Your task to perform on an android device: toggle notifications settings in the gmail app Image 0: 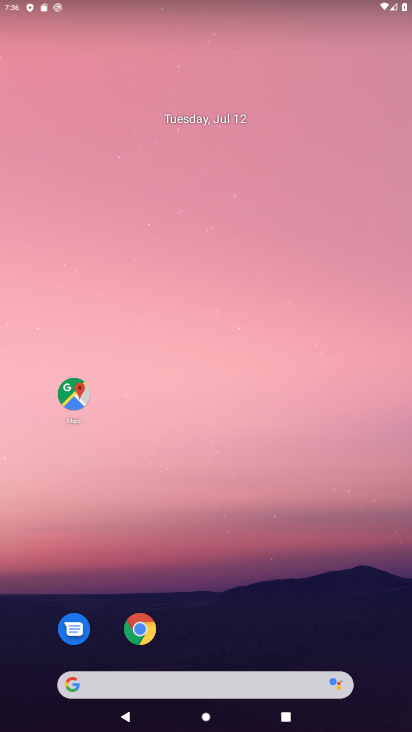
Step 0: drag from (249, 626) to (253, 0)
Your task to perform on an android device: toggle notifications settings in the gmail app Image 1: 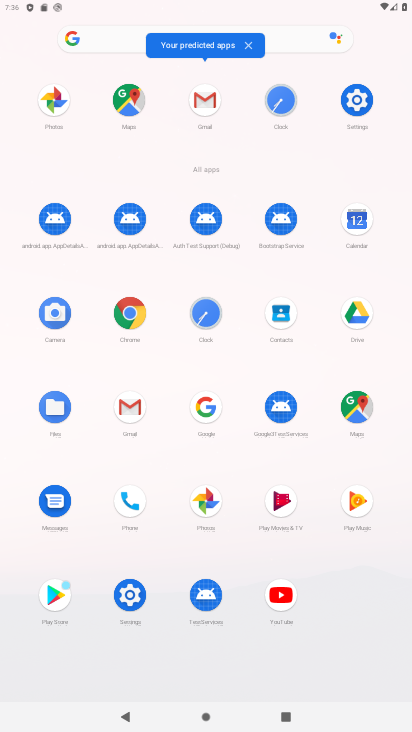
Step 1: click (130, 426)
Your task to perform on an android device: toggle notifications settings in the gmail app Image 2: 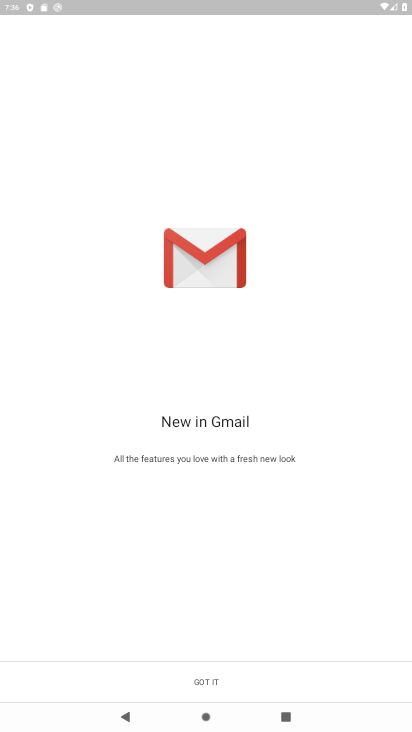
Step 2: click (182, 683)
Your task to perform on an android device: toggle notifications settings in the gmail app Image 3: 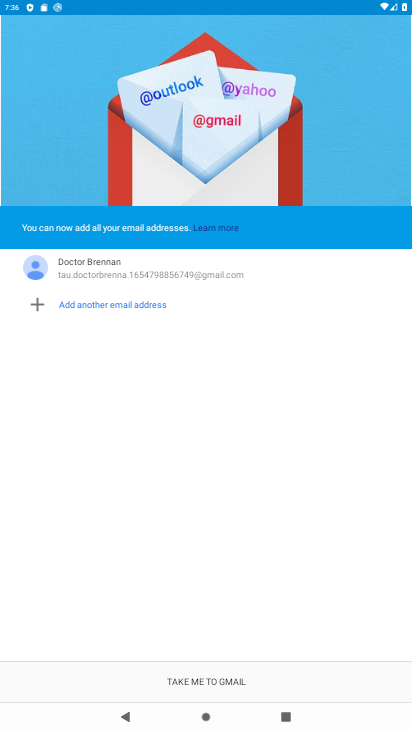
Step 3: click (183, 682)
Your task to perform on an android device: toggle notifications settings in the gmail app Image 4: 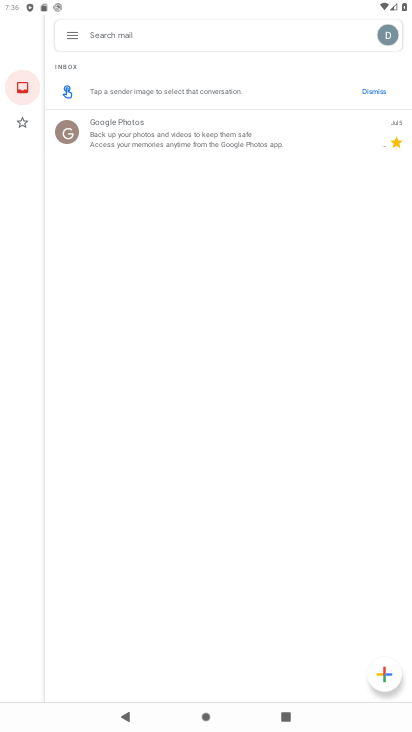
Step 4: click (73, 39)
Your task to perform on an android device: toggle notifications settings in the gmail app Image 5: 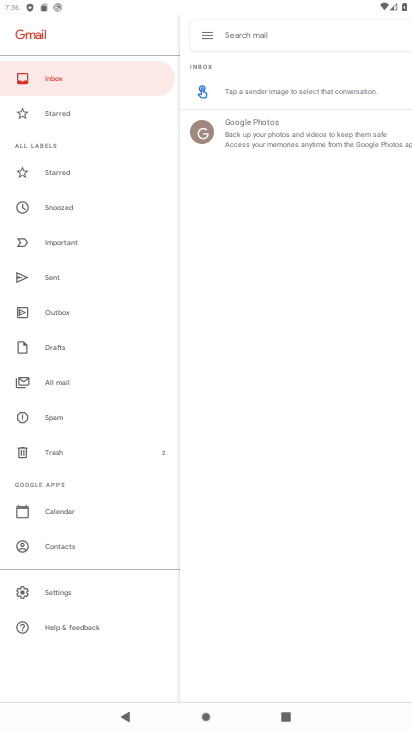
Step 5: click (63, 596)
Your task to perform on an android device: toggle notifications settings in the gmail app Image 6: 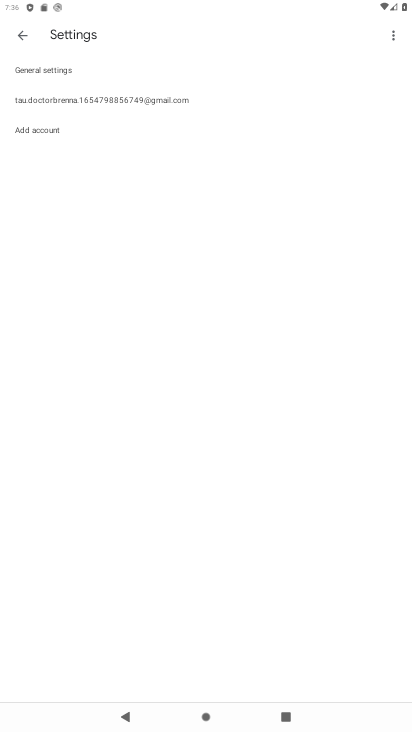
Step 6: click (37, 66)
Your task to perform on an android device: toggle notifications settings in the gmail app Image 7: 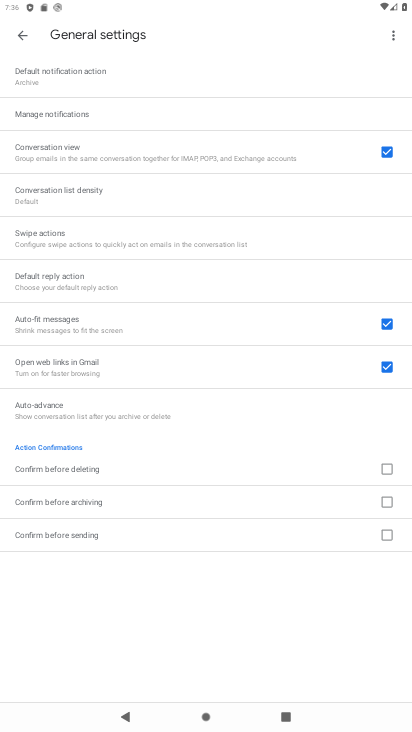
Step 7: click (71, 113)
Your task to perform on an android device: toggle notifications settings in the gmail app Image 8: 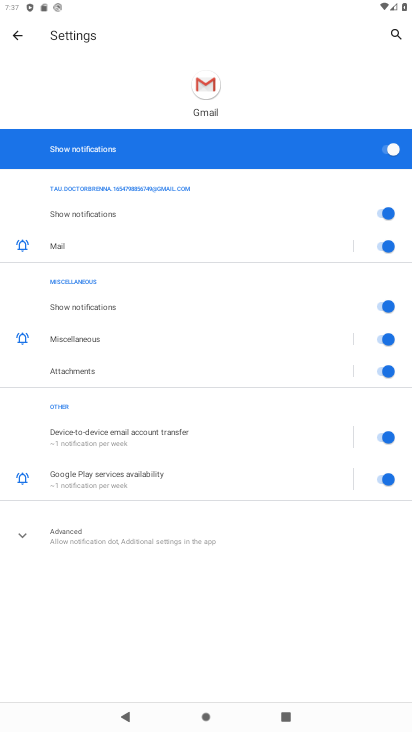
Step 8: click (385, 154)
Your task to perform on an android device: toggle notifications settings in the gmail app Image 9: 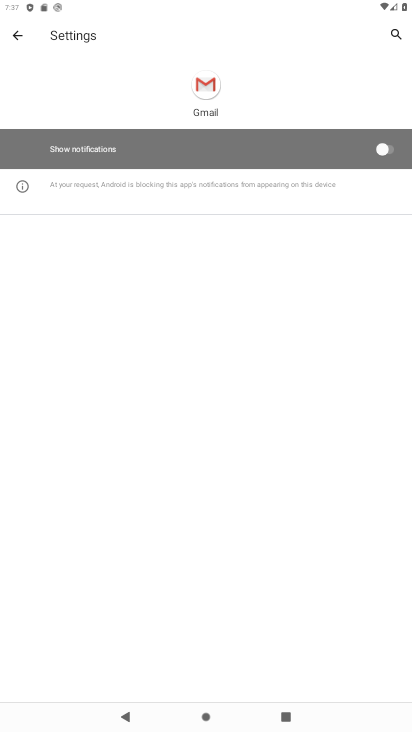
Step 9: task complete